Your task to perform on an android device: What is the recent news? Image 0: 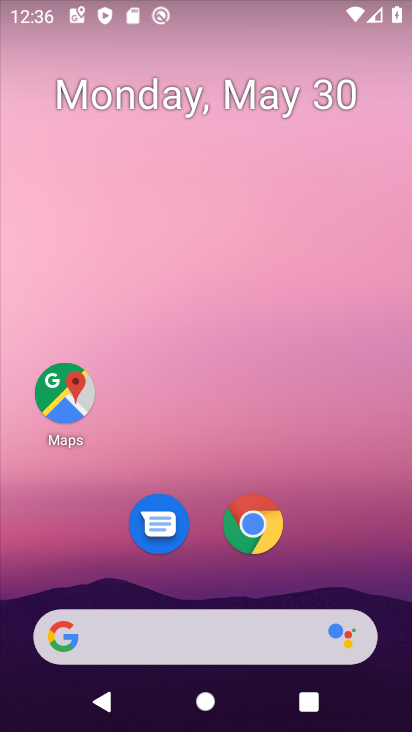
Step 0: click (183, 638)
Your task to perform on an android device: What is the recent news? Image 1: 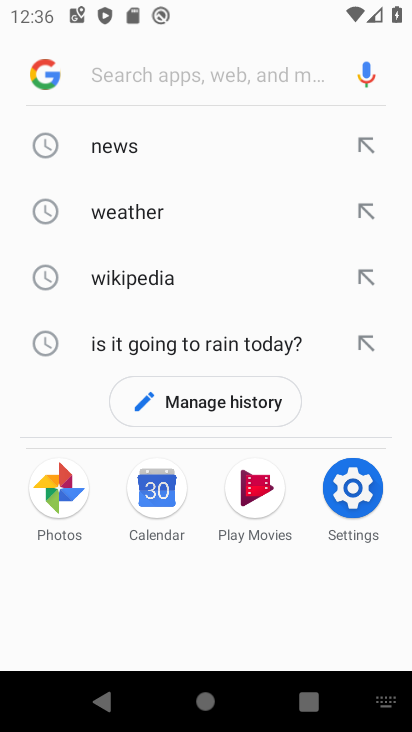
Step 1: click (115, 139)
Your task to perform on an android device: What is the recent news? Image 2: 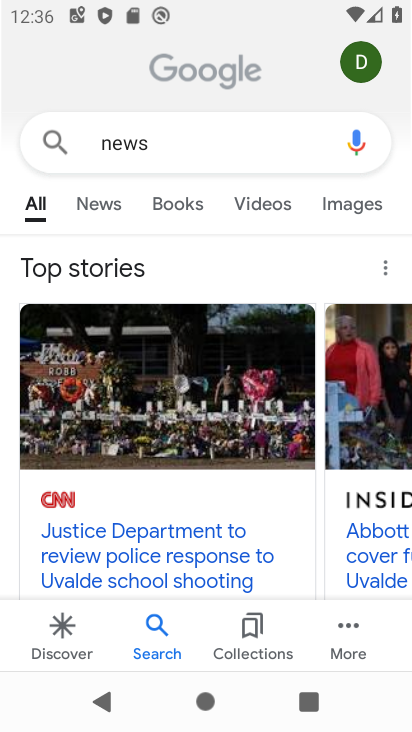
Step 2: task complete